Your task to perform on an android device: change the clock display to analog Image 0: 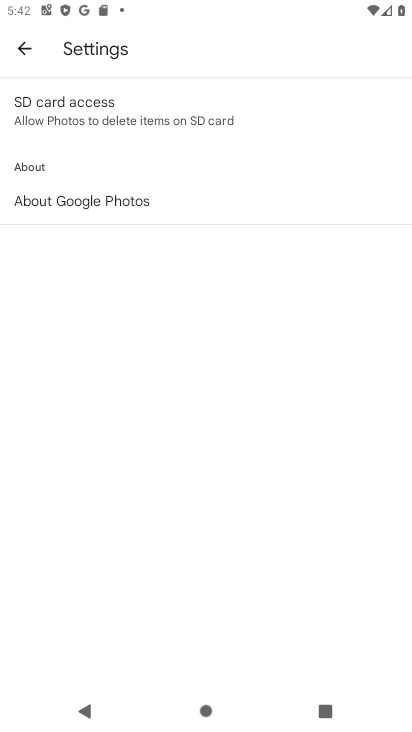
Step 0: press home button
Your task to perform on an android device: change the clock display to analog Image 1: 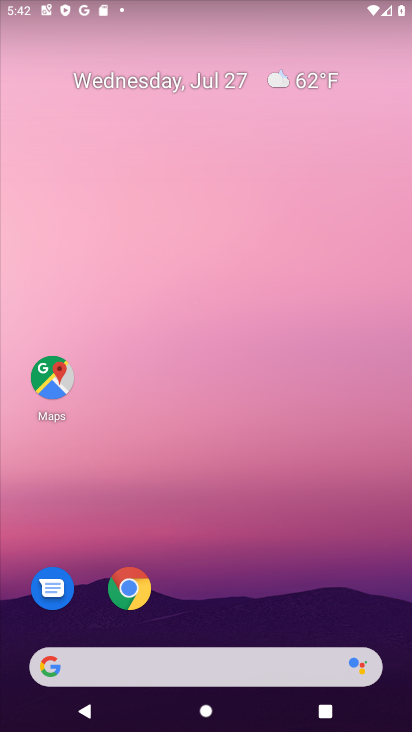
Step 1: drag from (189, 609) to (234, 139)
Your task to perform on an android device: change the clock display to analog Image 2: 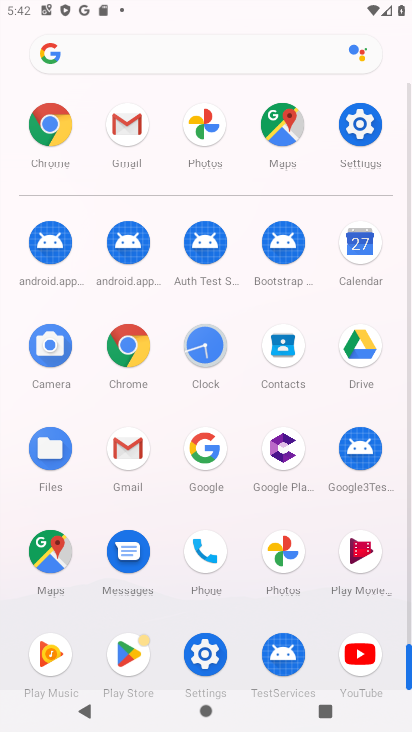
Step 2: click (207, 361)
Your task to perform on an android device: change the clock display to analog Image 3: 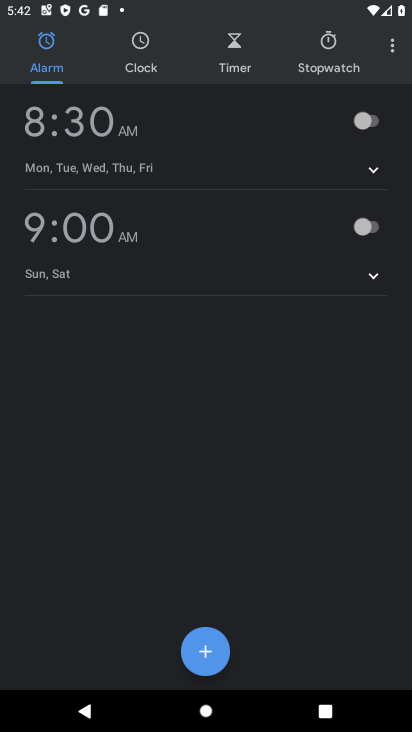
Step 3: click (390, 53)
Your task to perform on an android device: change the clock display to analog Image 4: 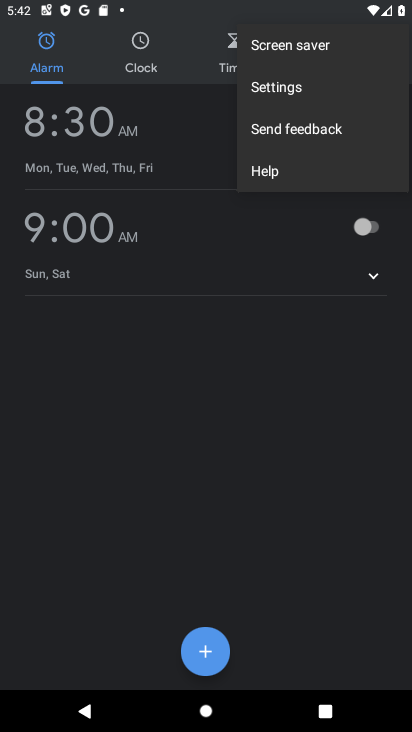
Step 4: click (270, 92)
Your task to perform on an android device: change the clock display to analog Image 5: 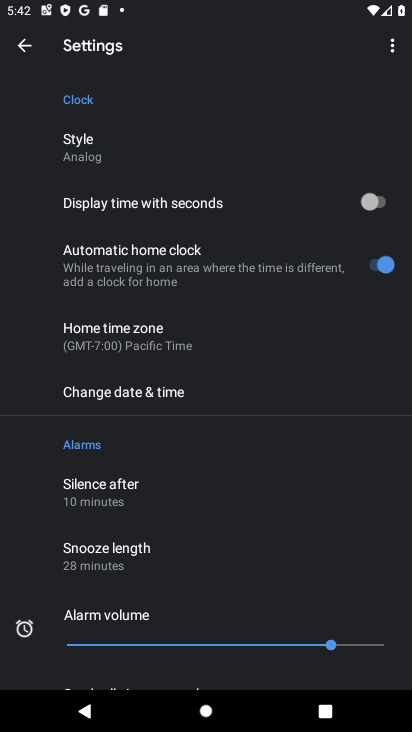
Step 5: click (85, 143)
Your task to perform on an android device: change the clock display to analog Image 6: 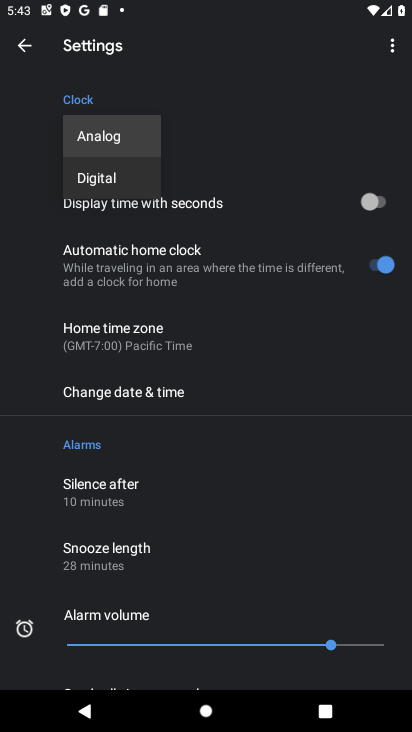
Step 6: task complete